Your task to perform on an android device: clear history in the chrome app Image 0: 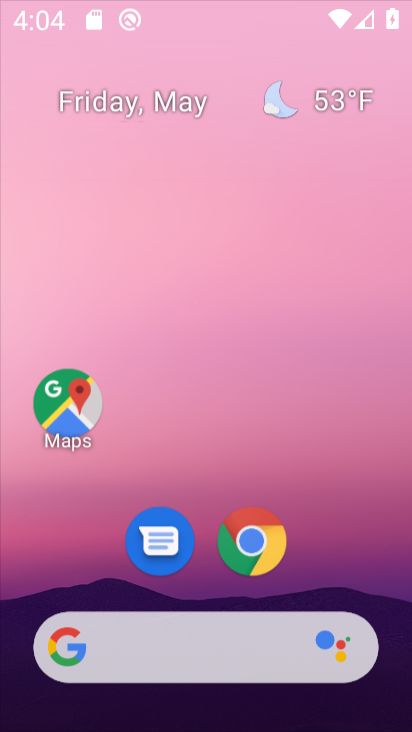
Step 0: drag from (381, 359) to (381, 239)
Your task to perform on an android device: clear history in the chrome app Image 1: 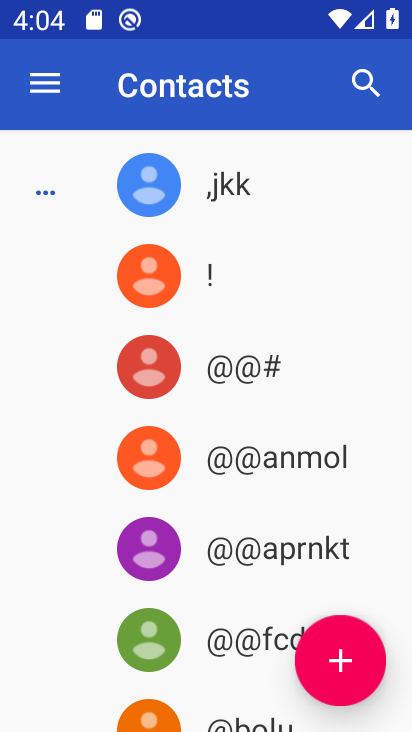
Step 1: press home button
Your task to perform on an android device: clear history in the chrome app Image 2: 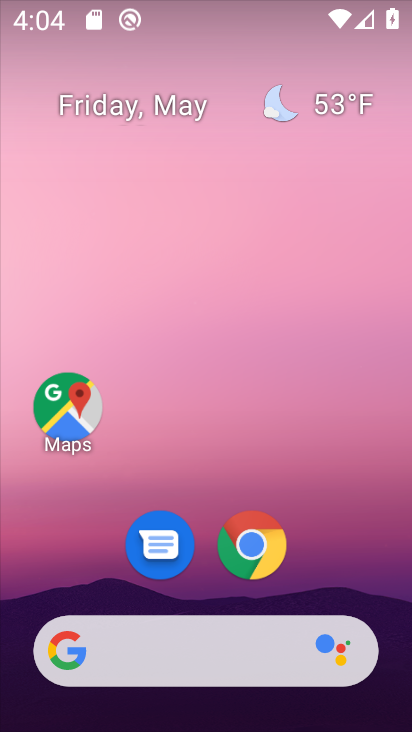
Step 2: drag from (380, 583) to (371, 245)
Your task to perform on an android device: clear history in the chrome app Image 3: 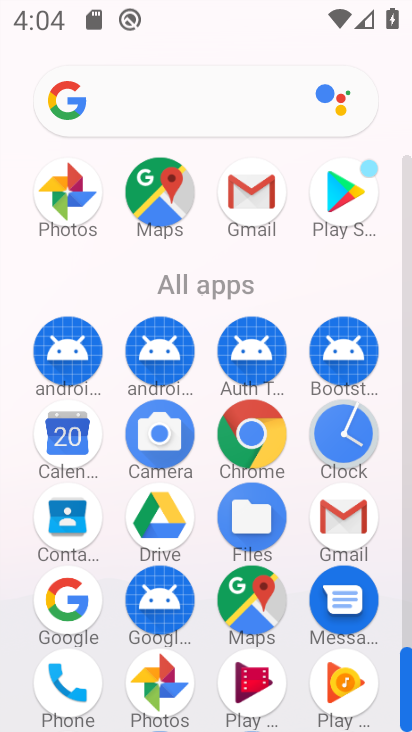
Step 3: click (263, 460)
Your task to perform on an android device: clear history in the chrome app Image 4: 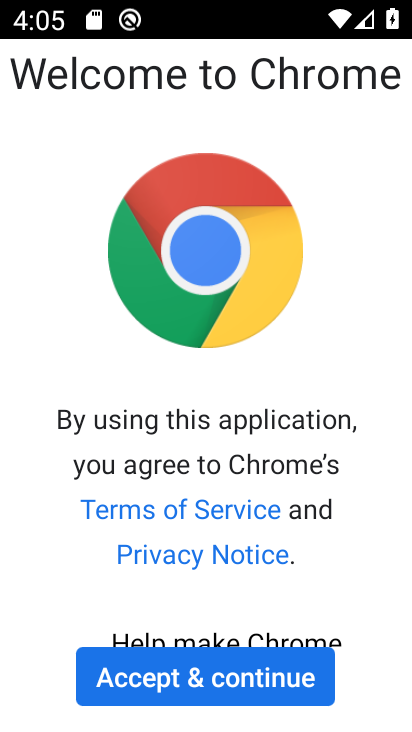
Step 4: click (292, 667)
Your task to perform on an android device: clear history in the chrome app Image 5: 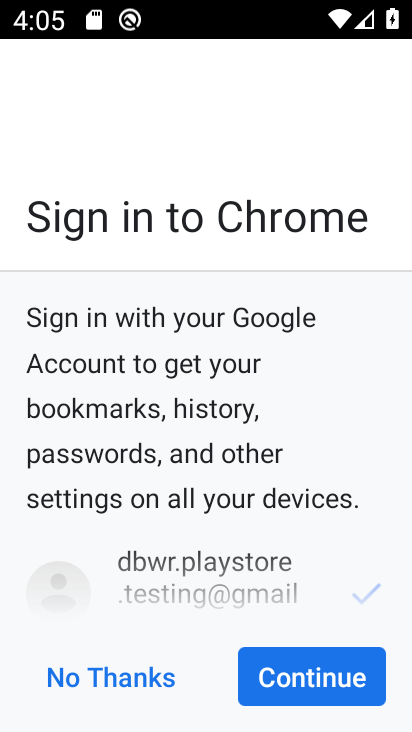
Step 5: click (292, 668)
Your task to perform on an android device: clear history in the chrome app Image 6: 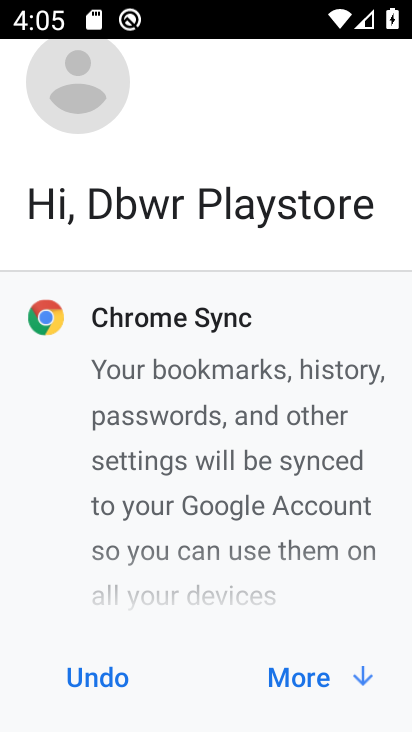
Step 6: click (292, 668)
Your task to perform on an android device: clear history in the chrome app Image 7: 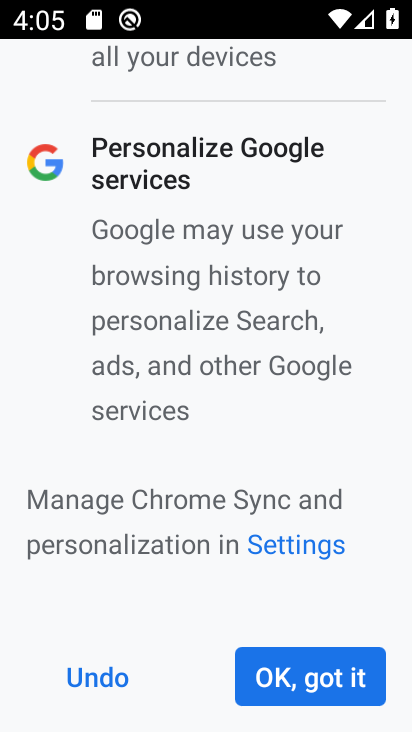
Step 7: click (292, 679)
Your task to perform on an android device: clear history in the chrome app Image 8: 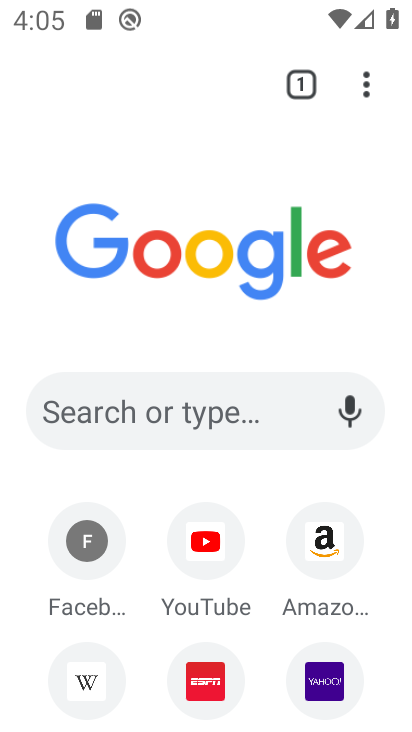
Step 8: click (368, 101)
Your task to perform on an android device: clear history in the chrome app Image 9: 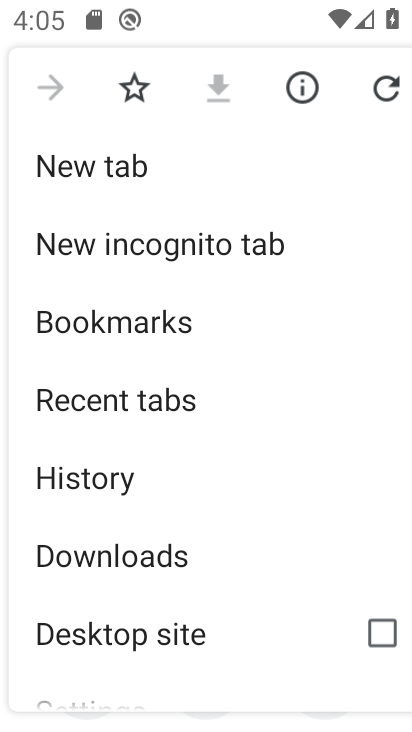
Step 9: drag from (269, 511) to (269, 416)
Your task to perform on an android device: clear history in the chrome app Image 10: 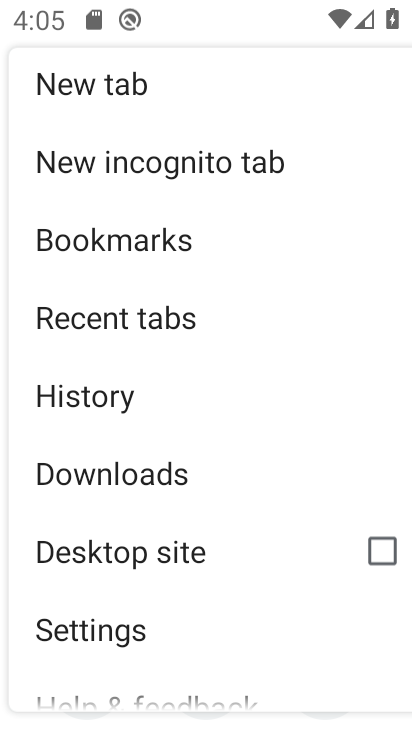
Step 10: click (165, 409)
Your task to perform on an android device: clear history in the chrome app Image 11: 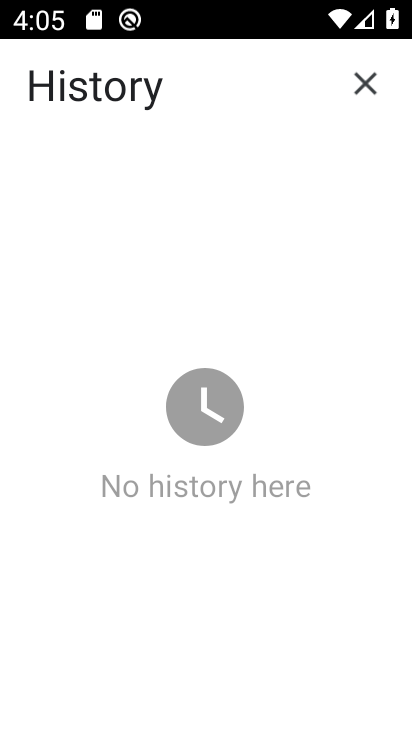
Step 11: task complete